Your task to perform on an android device: Go to notification settings Image 0: 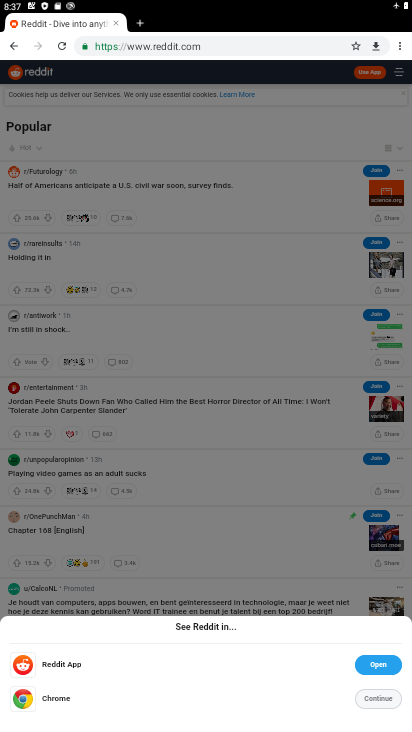
Step 0: press home button
Your task to perform on an android device: Go to notification settings Image 1: 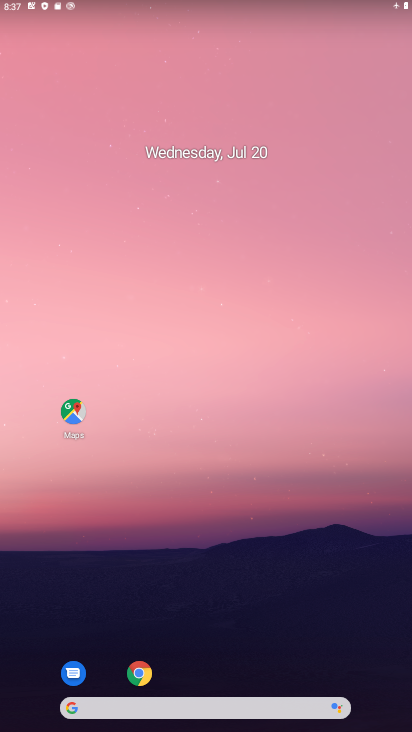
Step 1: drag from (194, 690) to (203, 245)
Your task to perform on an android device: Go to notification settings Image 2: 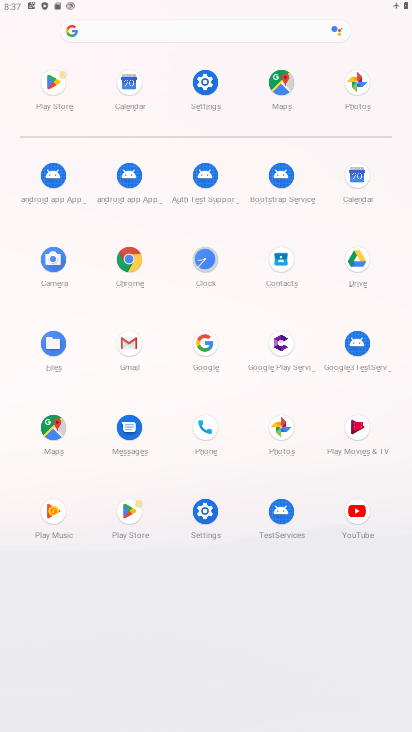
Step 2: click (204, 78)
Your task to perform on an android device: Go to notification settings Image 3: 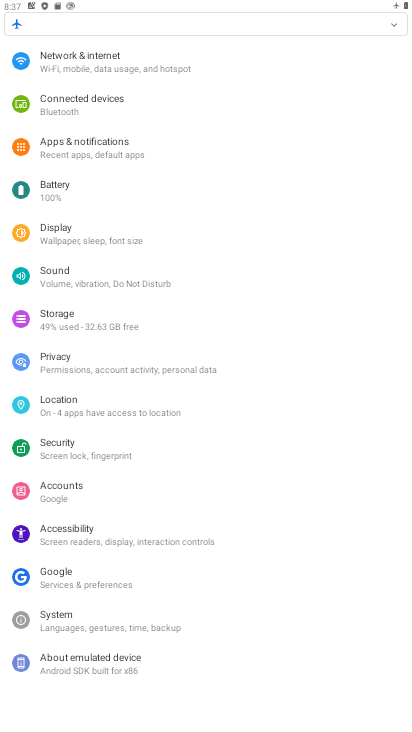
Step 3: click (107, 150)
Your task to perform on an android device: Go to notification settings Image 4: 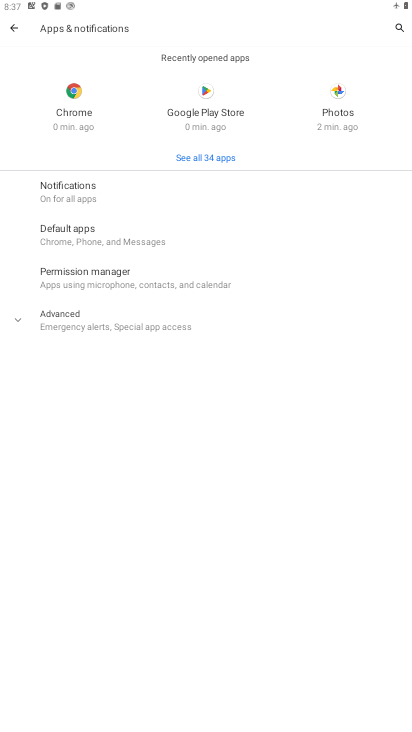
Step 4: click (79, 189)
Your task to perform on an android device: Go to notification settings Image 5: 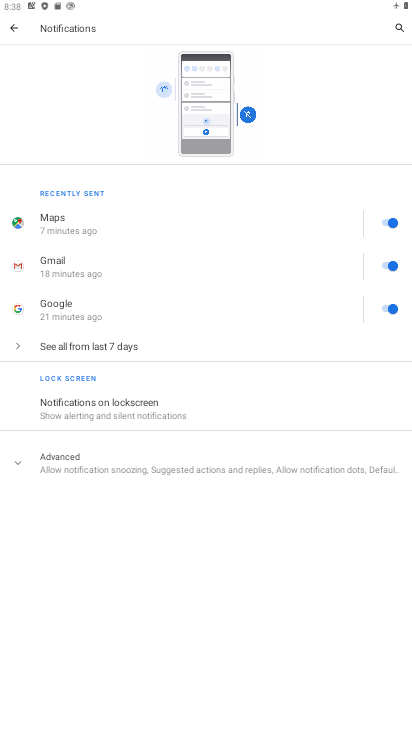
Step 5: task complete